Your task to perform on an android device: change the upload size in google photos Image 0: 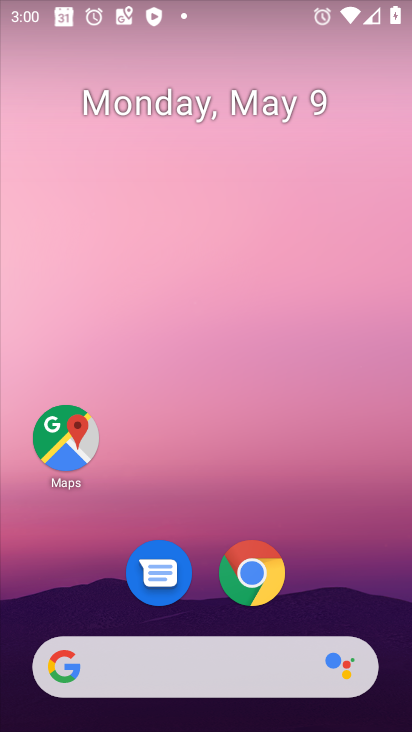
Step 0: drag from (200, 635) to (205, 336)
Your task to perform on an android device: change the upload size in google photos Image 1: 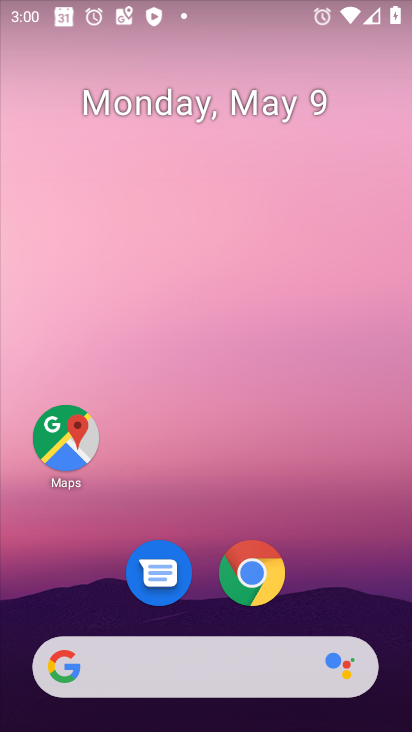
Step 1: drag from (252, 608) to (241, 194)
Your task to perform on an android device: change the upload size in google photos Image 2: 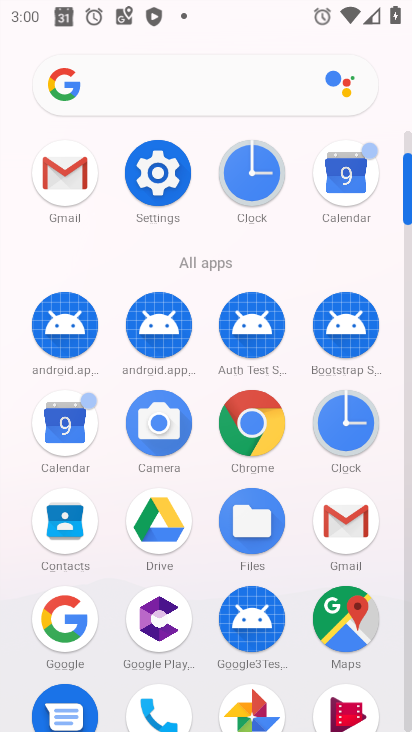
Step 2: click (245, 703)
Your task to perform on an android device: change the upload size in google photos Image 3: 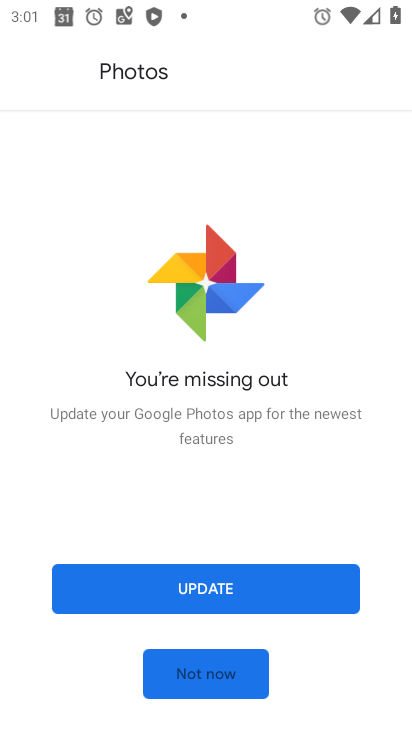
Step 3: click (169, 674)
Your task to perform on an android device: change the upload size in google photos Image 4: 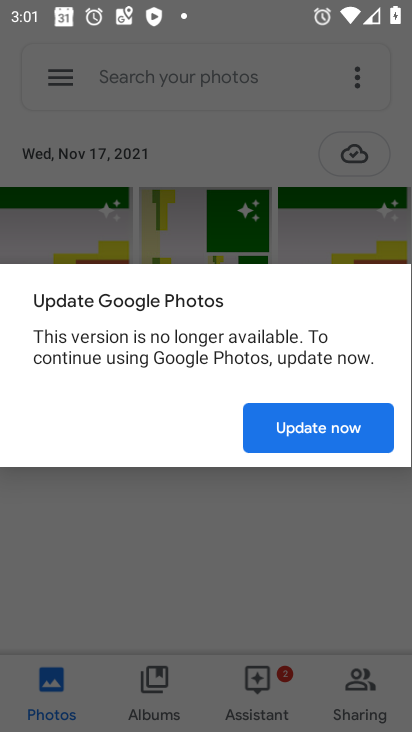
Step 4: click (357, 436)
Your task to perform on an android device: change the upload size in google photos Image 5: 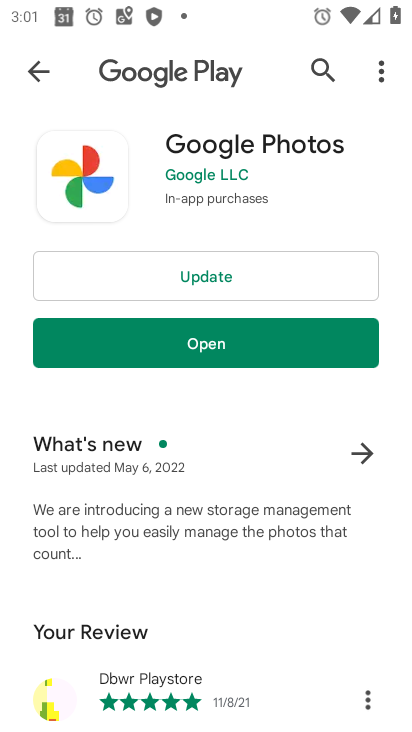
Step 5: click (183, 291)
Your task to perform on an android device: change the upload size in google photos Image 6: 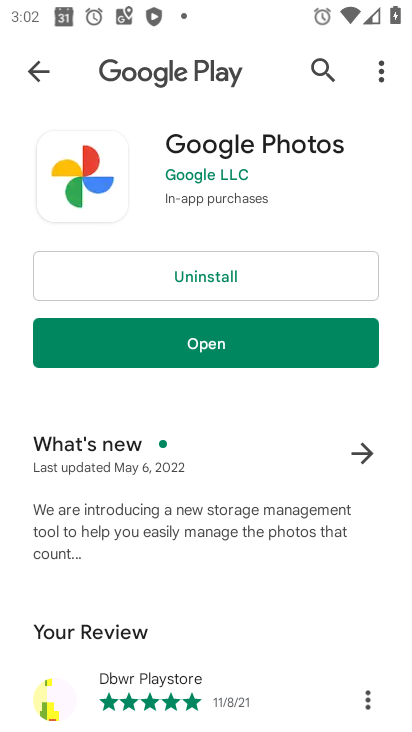
Step 6: click (209, 352)
Your task to perform on an android device: change the upload size in google photos Image 7: 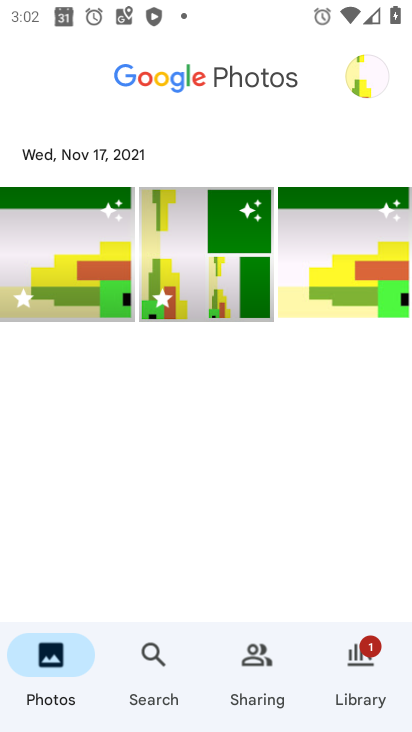
Step 7: click (357, 82)
Your task to perform on an android device: change the upload size in google photos Image 8: 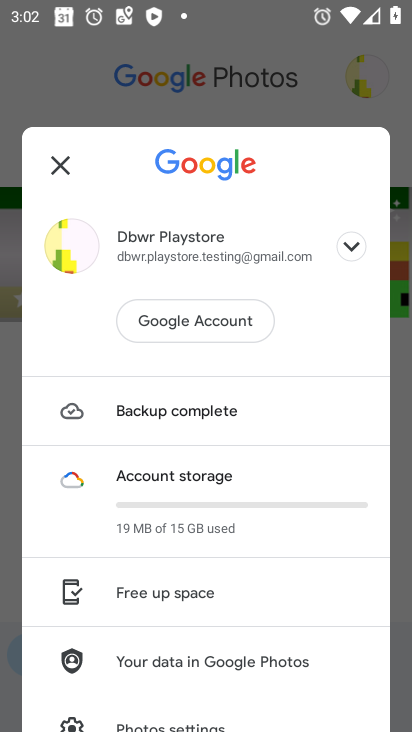
Step 8: click (175, 417)
Your task to perform on an android device: change the upload size in google photos Image 9: 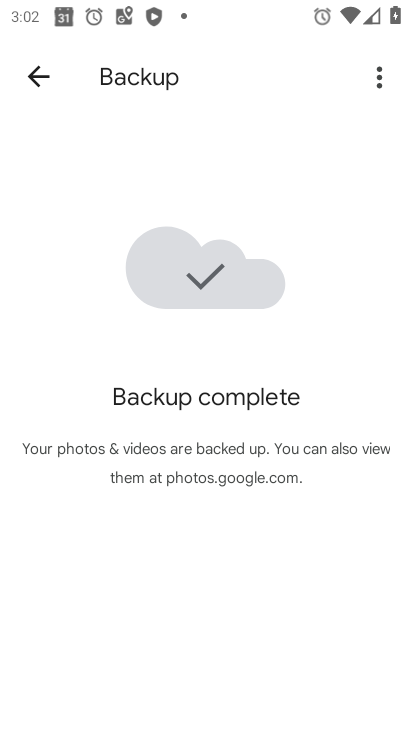
Step 9: click (39, 80)
Your task to perform on an android device: change the upload size in google photos Image 10: 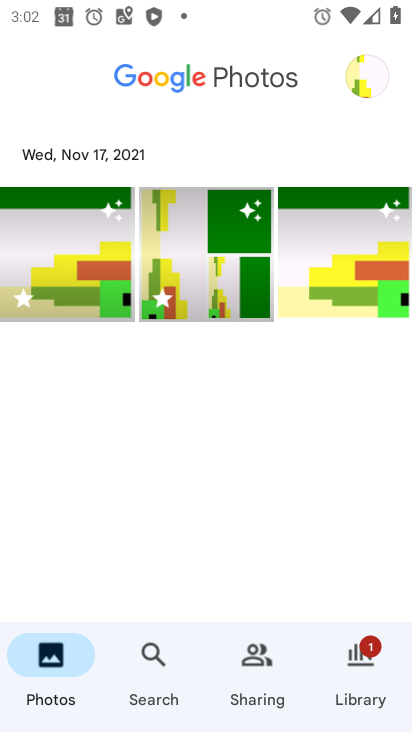
Step 10: click (346, 88)
Your task to perform on an android device: change the upload size in google photos Image 11: 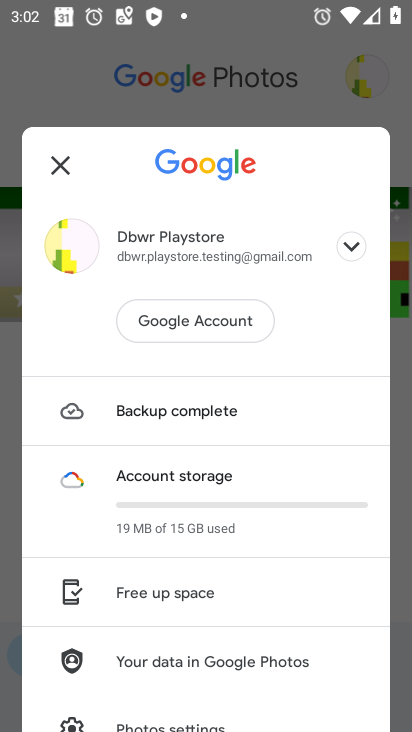
Step 11: drag from (184, 716) to (213, 429)
Your task to perform on an android device: change the upload size in google photos Image 12: 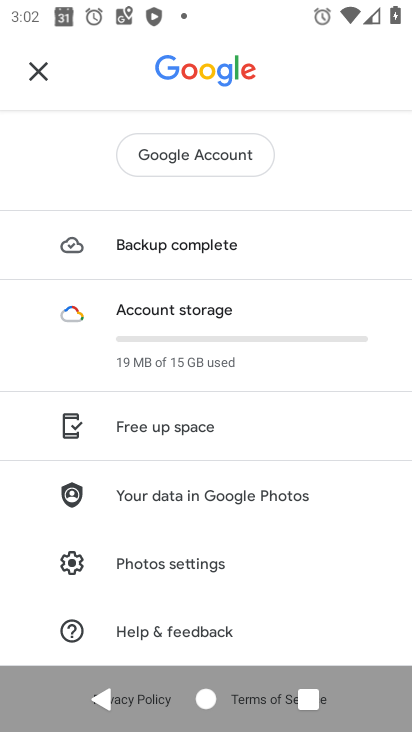
Step 12: click (157, 561)
Your task to perform on an android device: change the upload size in google photos Image 13: 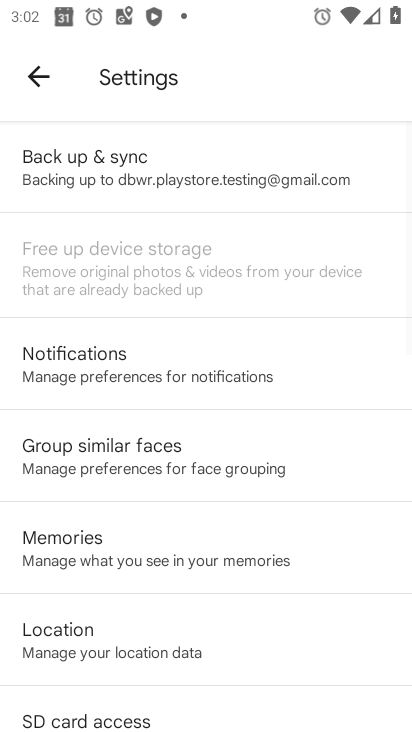
Step 13: click (101, 160)
Your task to perform on an android device: change the upload size in google photos Image 14: 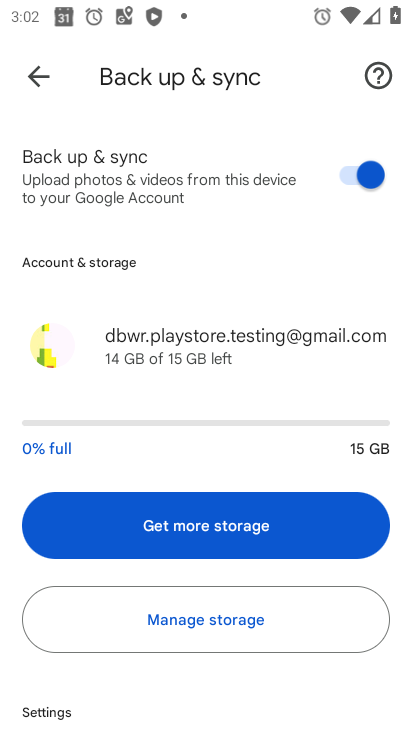
Step 14: drag from (162, 700) to (107, 322)
Your task to perform on an android device: change the upload size in google photos Image 15: 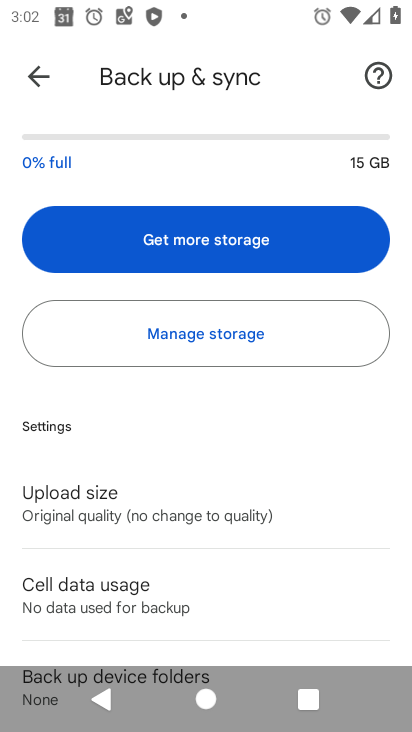
Step 15: click (90, 512)
Your task to perform on an android device: change the upload size in google photos Image 16: 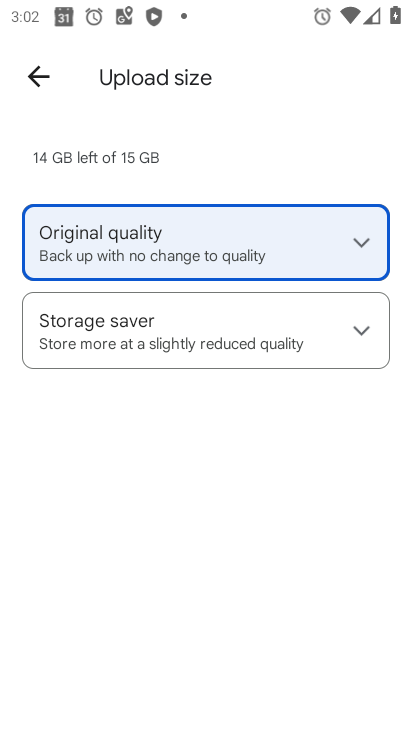
Step 16: click (71, 309)
Your task to perform on an android device: change the upload size in google photos Image 17: 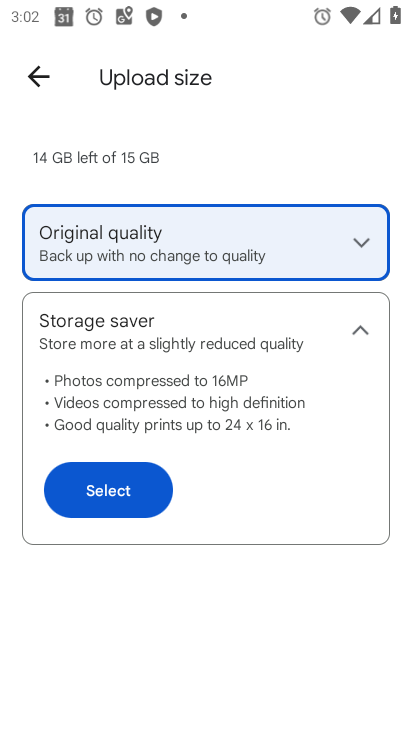
Step 17: task complete